Your task to perform on an android device: empty trash in google photos Image 0: 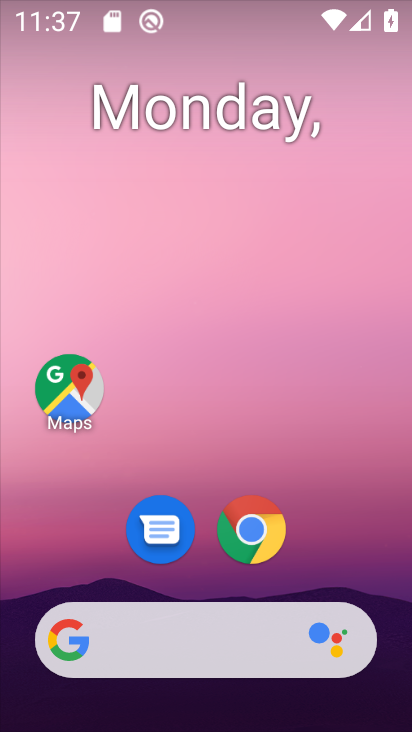
Step 0: drag from (141, 609) to (270, 63)
Your task to perform on an android device: empty trash in google photos Image 1: 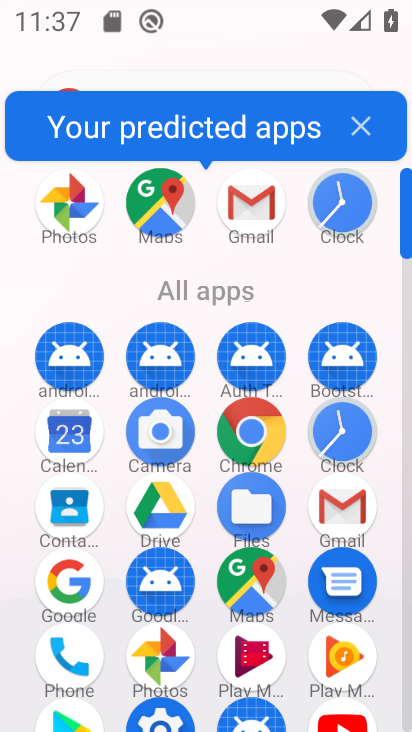
Step 1: drag from (167, 664) to (229, 389)
Your task to perform on an android device: empty trash in google photos Image 2: 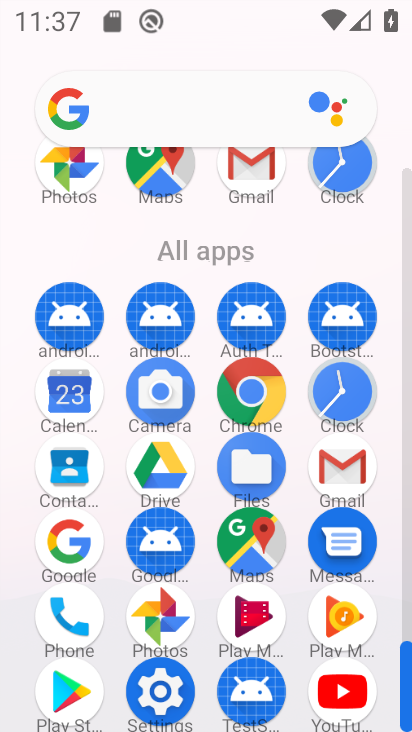
Step 2: click (171, 606)
Your task to perform on an android device: empty trash in google photos Image 3: 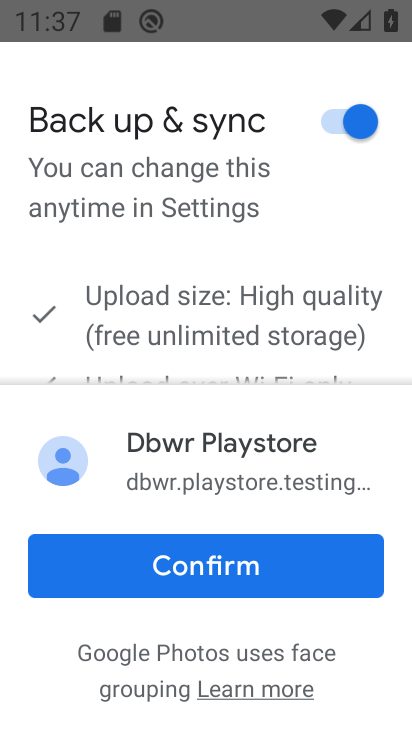
Step 3: click (265, 589)
Your task to perform on an android device: empty trash in google photos Image 4: 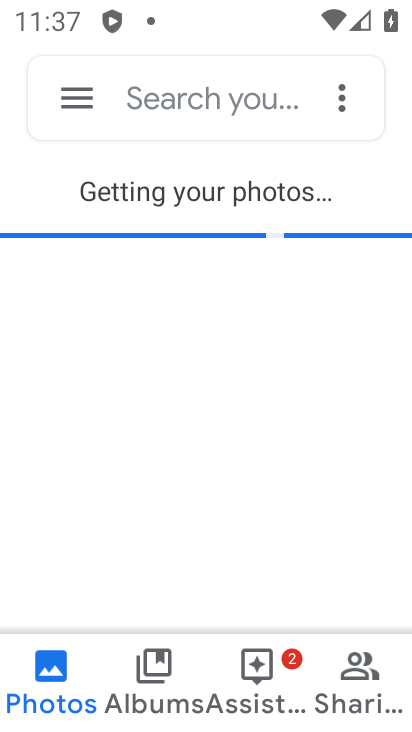
Step 4: click (84, 118)
Your task to perform on an android device: empty trash in google photos Image 5: 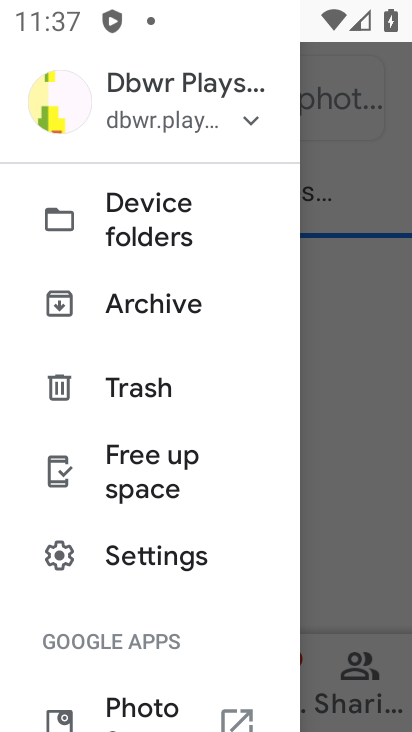
Step 5: click (128, 397)
Your task to perform on an android device: empty trash in google photos Image 6: 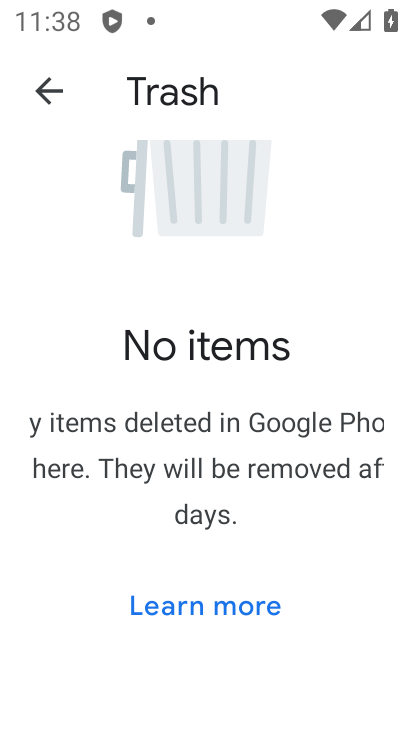
Step 6: task complete